Your task to perform on an android device: turn notification dots on Image 0: 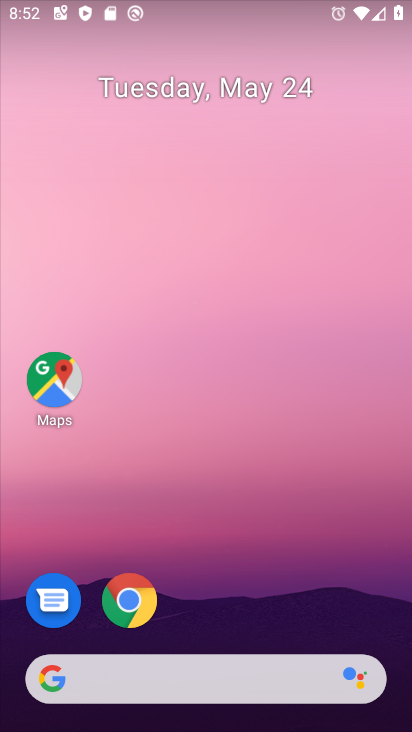
Step 0: drag from (218, 668) to (223, 208)
Your task to perform on an android device: turn notification dots on Image 1: 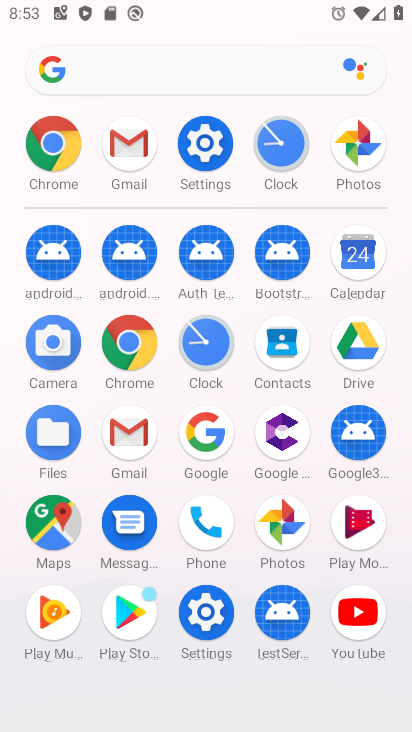
Step 1: click (203, 149)
Your task to perform on an android device: turn notification dots on Image 2: 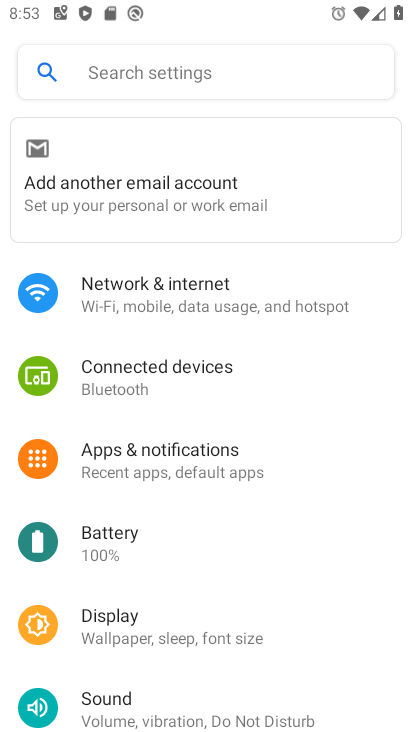
Step 2: click (160, 445)
Your task to perform on an android device: turn notification dots on Image 3: 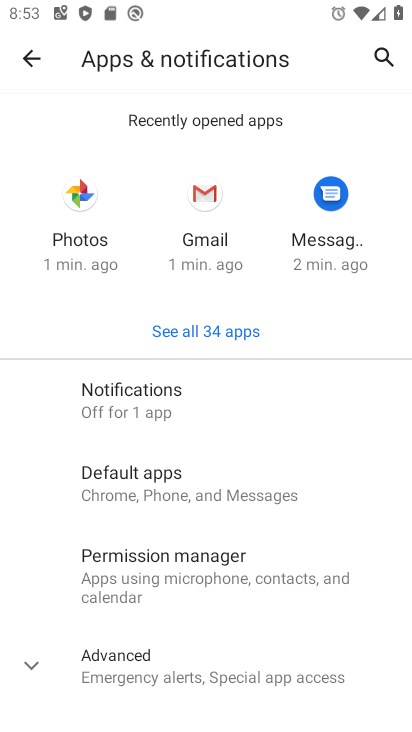
Step 3: click (144, 403)
Your task to perform on an android device: turn notification dots on Image 4: 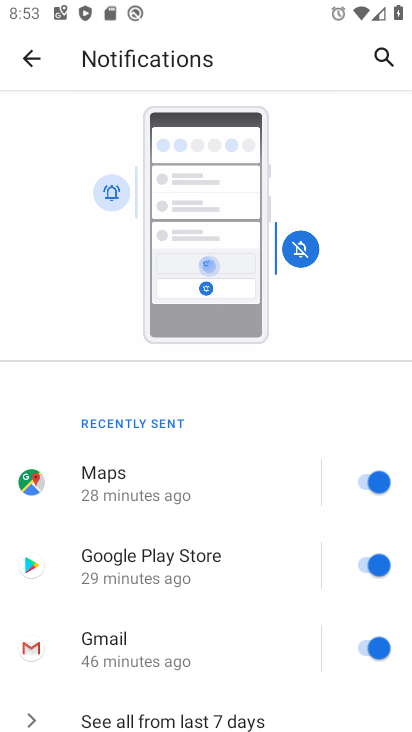
Step 4: drag from (150, 667) to (150, 372)
Your task to perform on an android device: turn notification dots on Image 5: 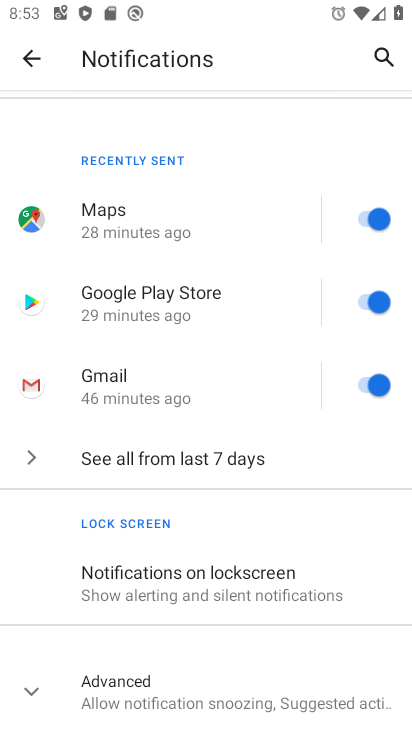
Step 5: drag from (172, 647) to (177, 376)
Your task to perform on an android device: turn notification dots on Image 6: 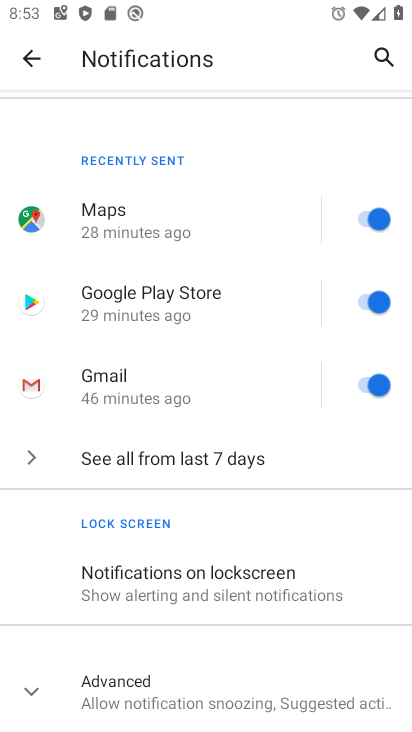
Step 6: click (123, 686)
Your task to perform on an android device: turn notification dots on Image 7: 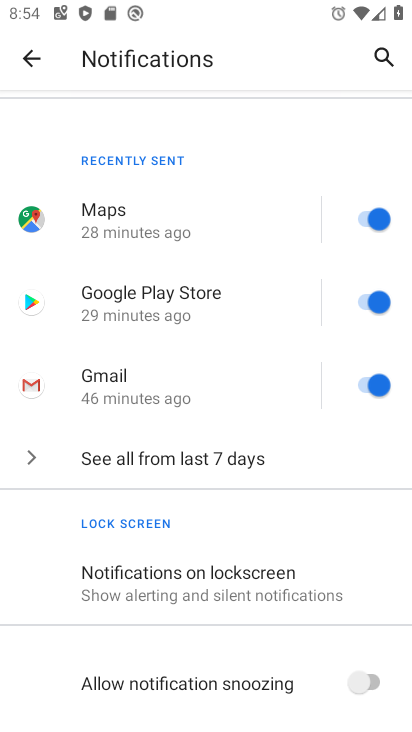
Step 7: task complete